Your task to perform on an android device: Open sound settings Image 0: 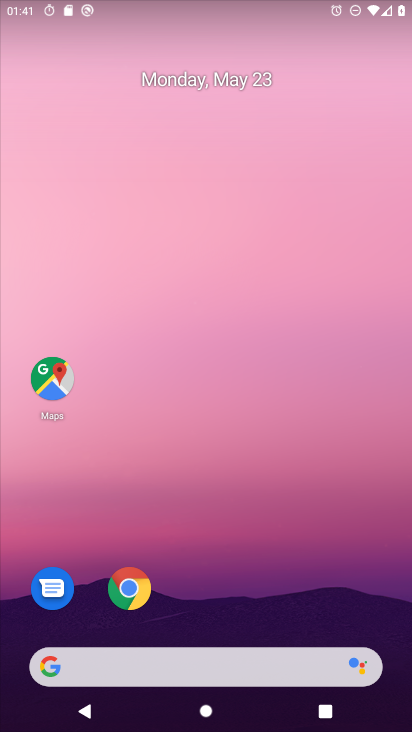
Step 0: press home button
Your task to perform on an android device: Open sound settings Image 1: 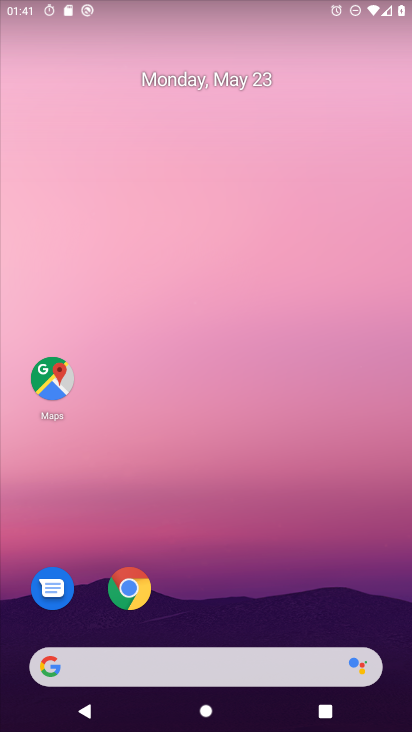
Step 1: drag from (248, 694) to (204, 131)
Your task to perform on an android device: Open sound settings Image 2: 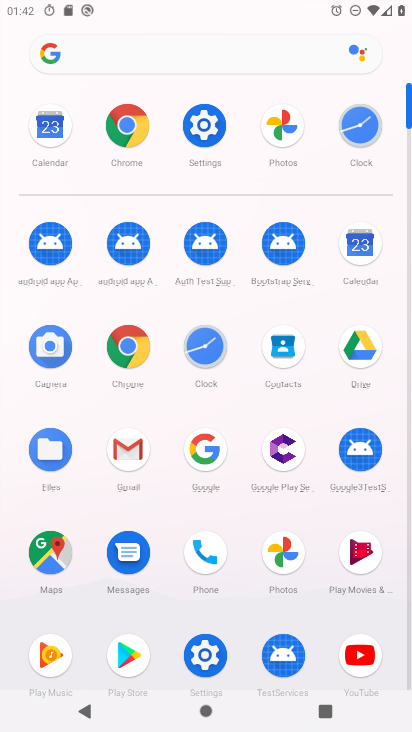
Step 2: click (211, 639)
Your task to perform on an android device: Open sound settings Image 3: 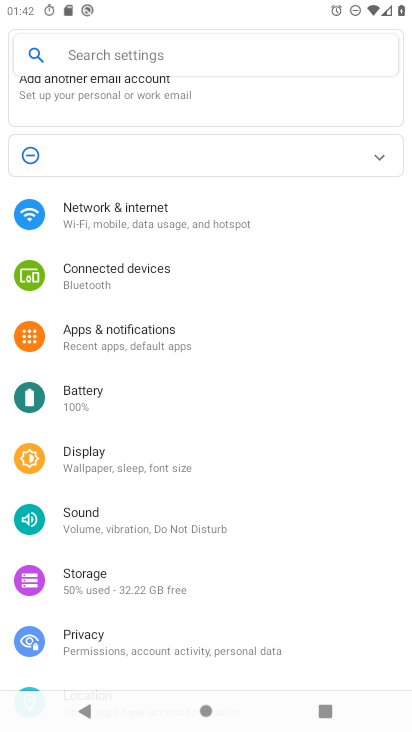
Step 3: click (150, 49)
Your task to perform on an android device: Open sound settings Image 4: 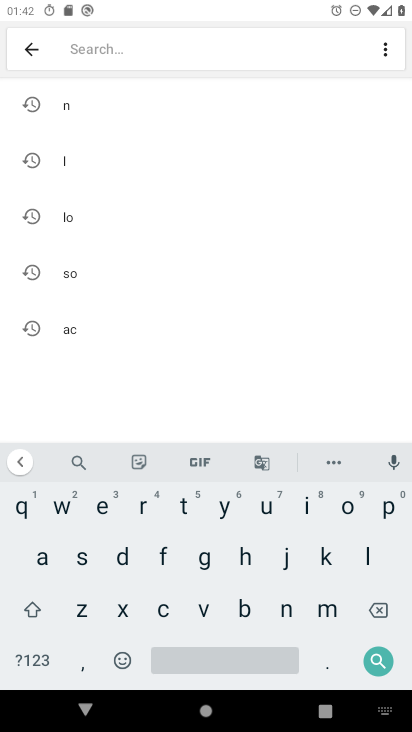
Step 4: click (84, 562)
Your task to perform on an android device: Open sound settings Image 5: 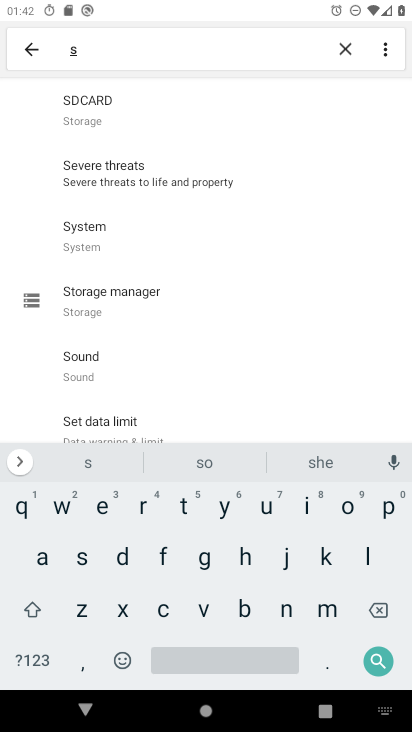
Step 5: click (112, 357)
Your task to perform on an android device: Open sound settings Image 6: 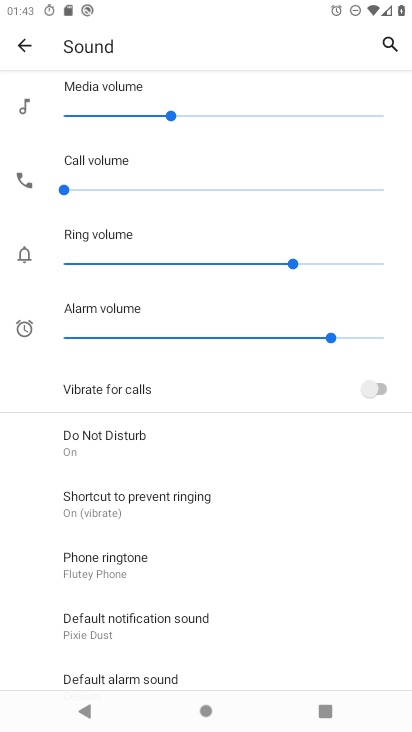
Step 6: task complete